Your task to perform on an android device: Go to battery settings Image 0: 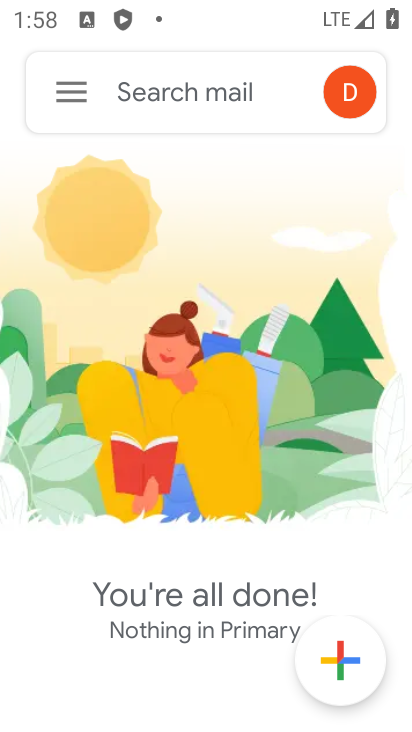
Step 0: press home button
Your task to perform on an android device: Go to battery settings Image 1: 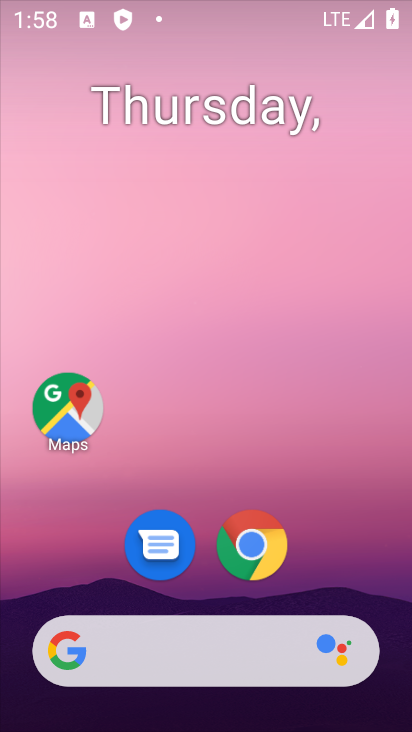
Step 1: drag from (163, 672) to (231, 49)
Your task to perform on an android device: Go to battery settings Image 2: 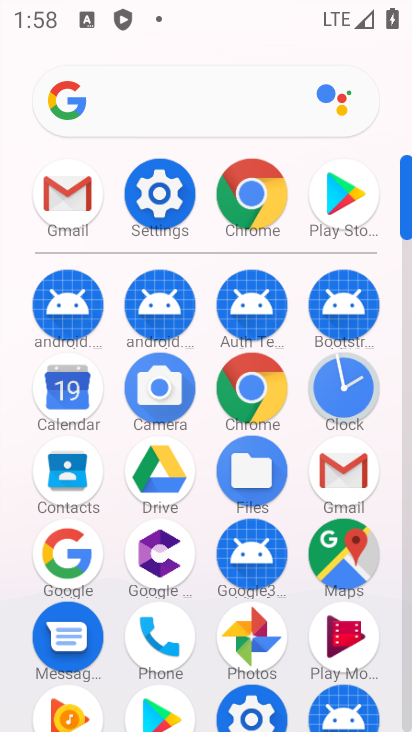
Step 2: click (154, 191)
Your task to perform on an android device: Go to battery settings Image 3: 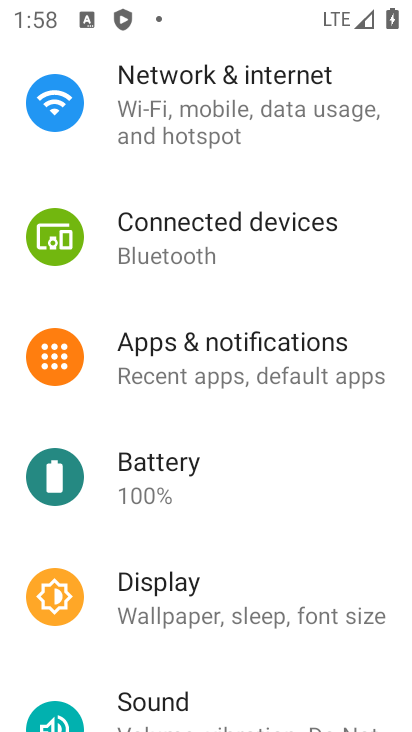
Step 3: click (240, 483)
Your task to perform on an android device: Go to battery settings Image 4: 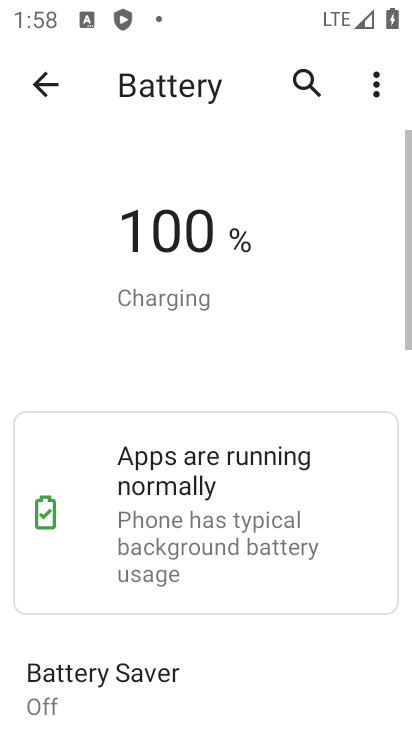
Step 4: task complete